Your task to perform on an android device: check out phone information Image 0: 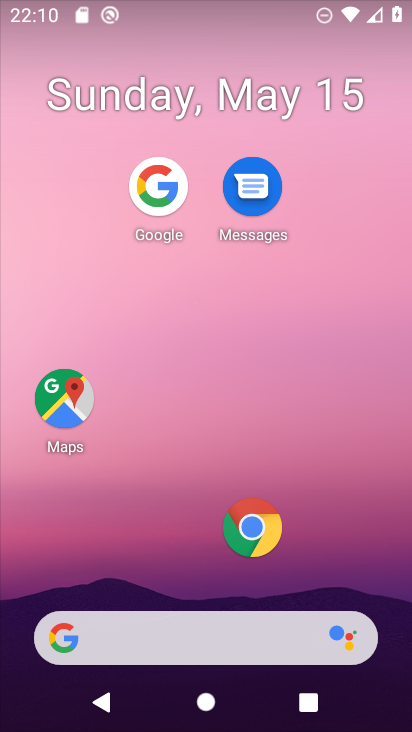
Step 0: press home button
Your task to perform on an android device: check out phone information Image 1: 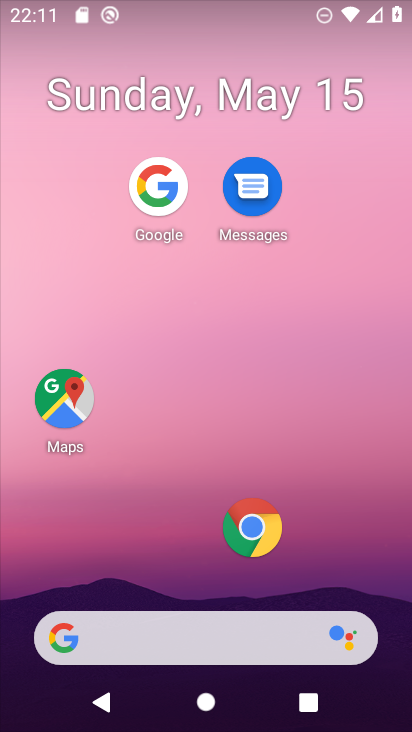
Step 1: drag from (189, 619) to (274, 130)
Your task to perform on an android device: check out phone information Image 2: 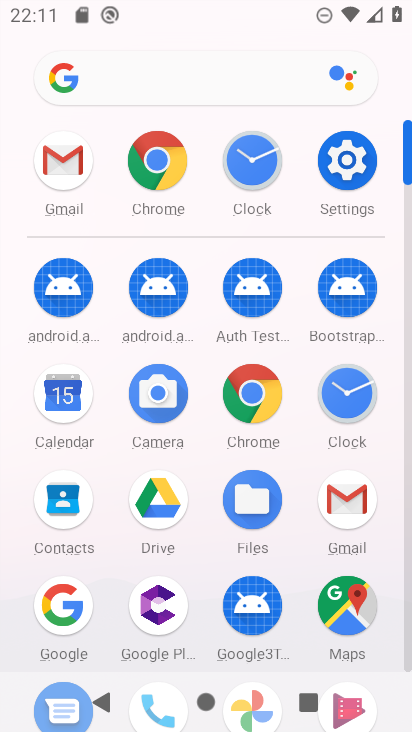
Step 2: click (342, 167)
Your task to perform on an android device: check out phone information Image 3: 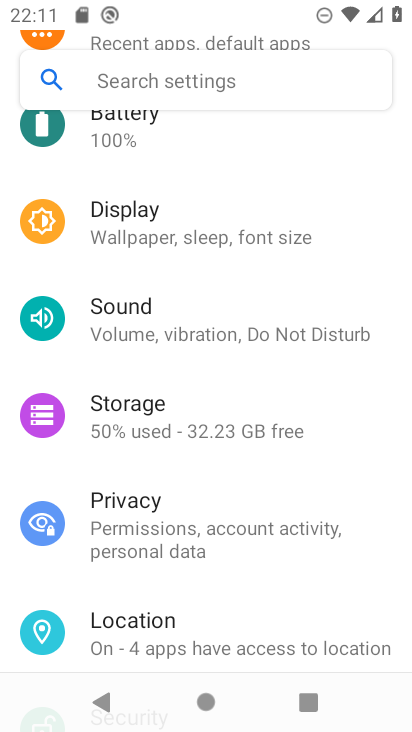
Step 3: drag from (200, 608) to (348, 160)
Your task to perform on an android device: check out phone information Image 4: 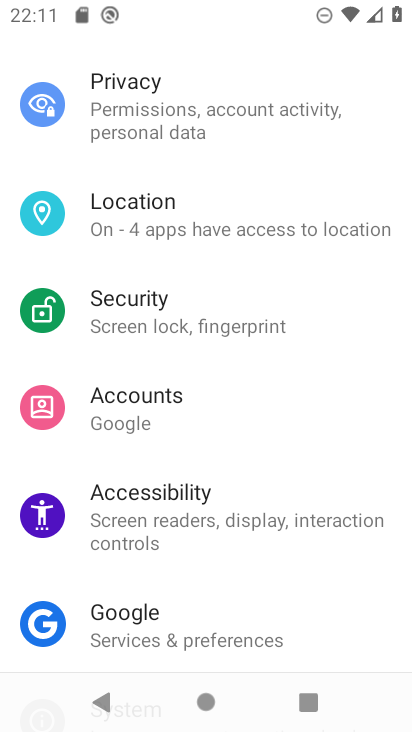
Step 4: drag from (192, 607) to (279, 215)
Your task to perform on an android device: check out phone information Image 5: 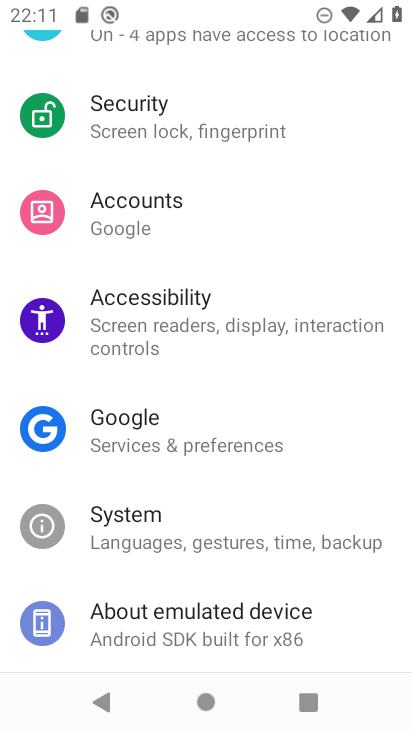
Step 5: click (184, 630)
Your task to perform on an android device: check out phone information Image 6: 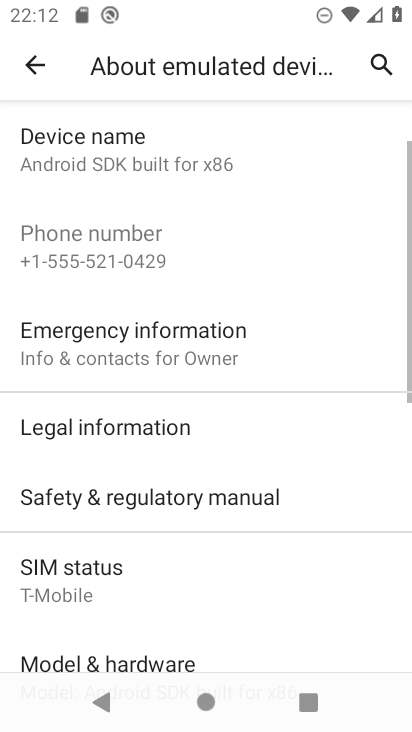
Step 6: task complete